Your task to perform on an android device: turn pop-ups off in chrome Image 0: 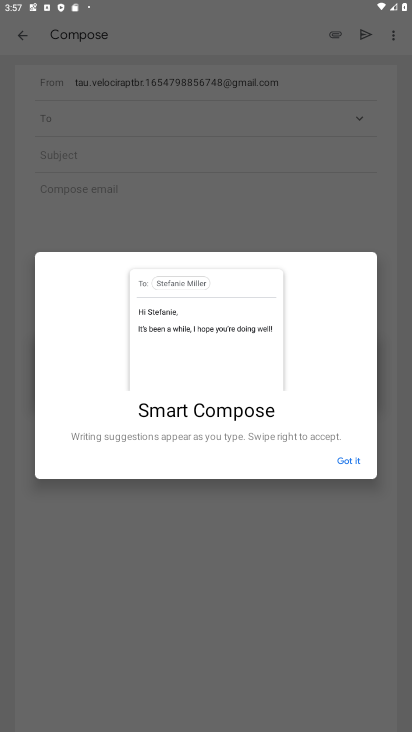
Step 0: press home button
Your task to perform on an android device: turn pop-ups off in chrome Image 1: 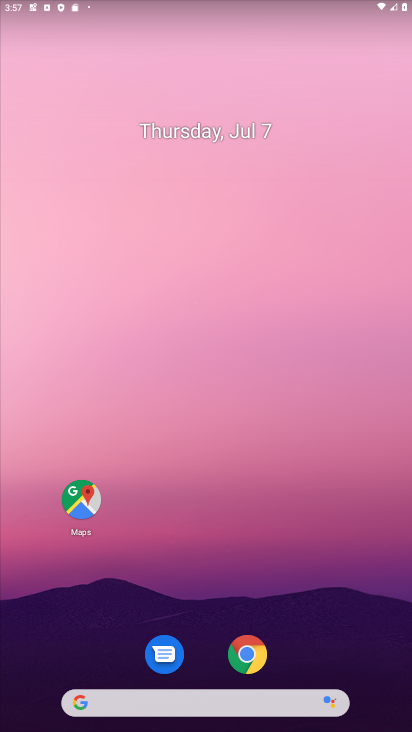
Step 1: click (250, 654)
Your task to perform on an android device: turn pop-ups off in chrome Image 2: 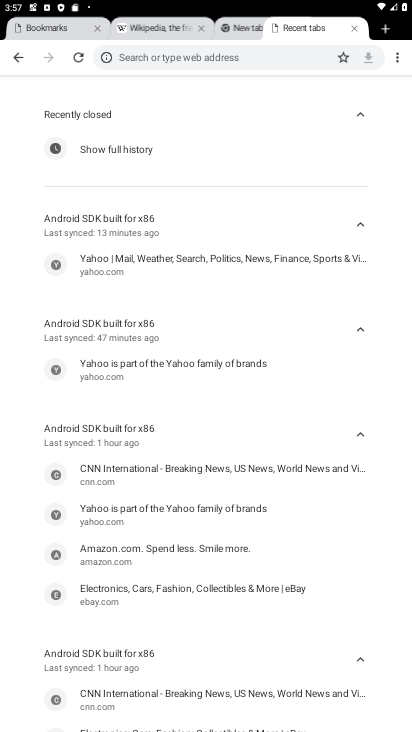
Step 2: click (398, 60)
Your task to perform on an android device: turn pop-ups off in chrome Image 3: 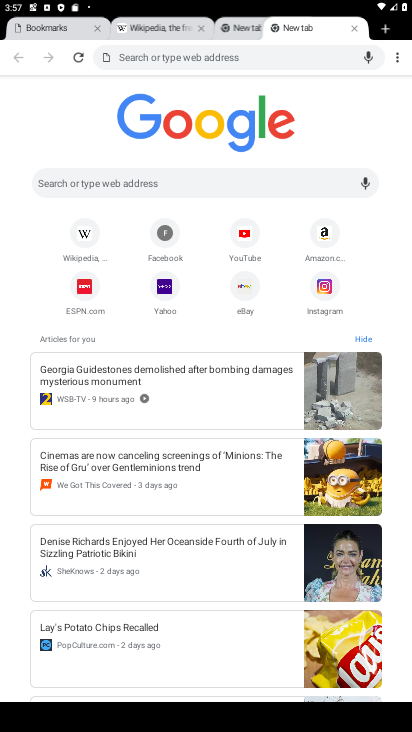
Step 3: click (399, 51)
Your task to perform on an android device: turn pop-ups off in chrome Image 4: 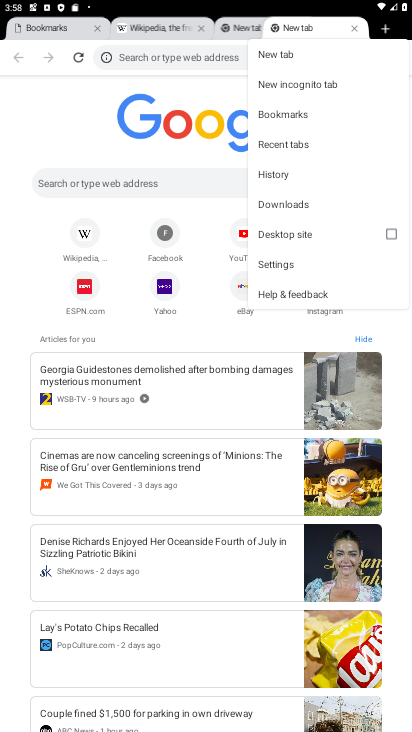
Step 4: click (281, 258)
Your task to perform on an android device: turn pop-ups off in chrome Image 5: 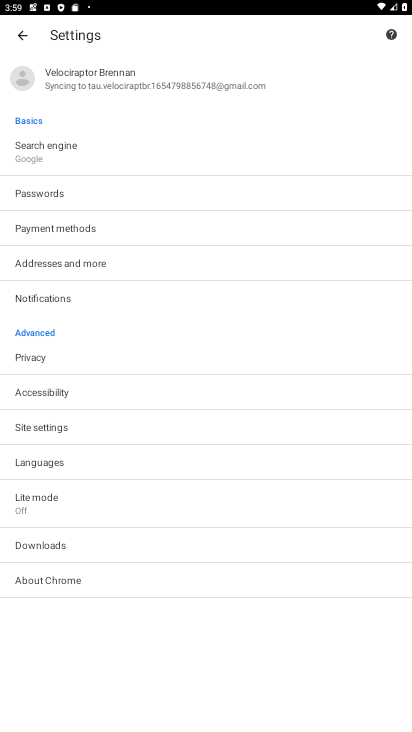
Step 5: click (129, 432)
Your task to perform on an android device: turn pop-ups off in chrome Image 6: 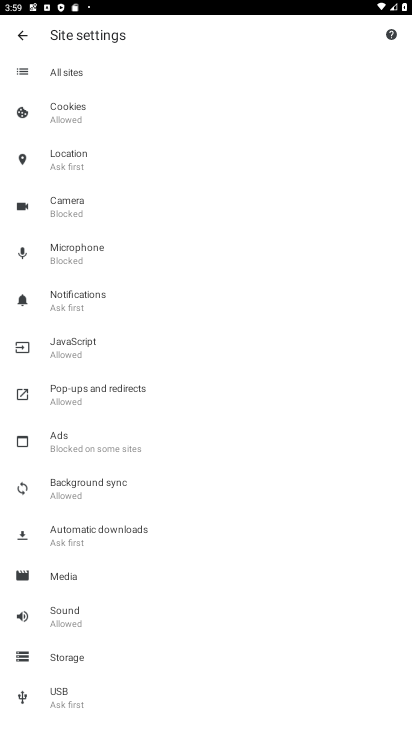
Step 6: click (131, 417)
Your task to perform on an android device: turn pop-ups off in chrome Image 7: 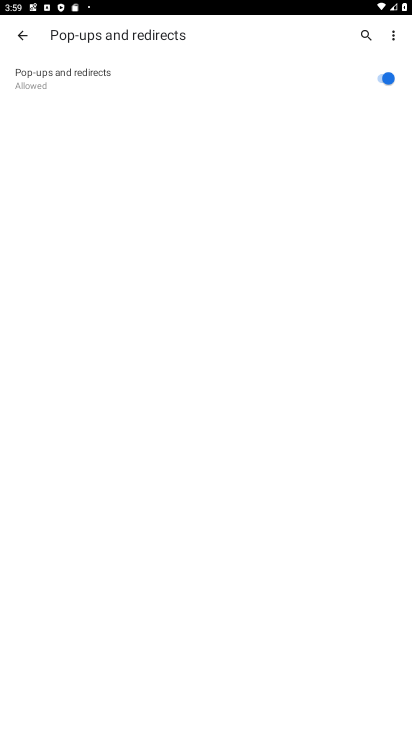
Step 7: click (380, 80)
Your task to perform on an android device: turn pop-ups off in chrome Image 8: 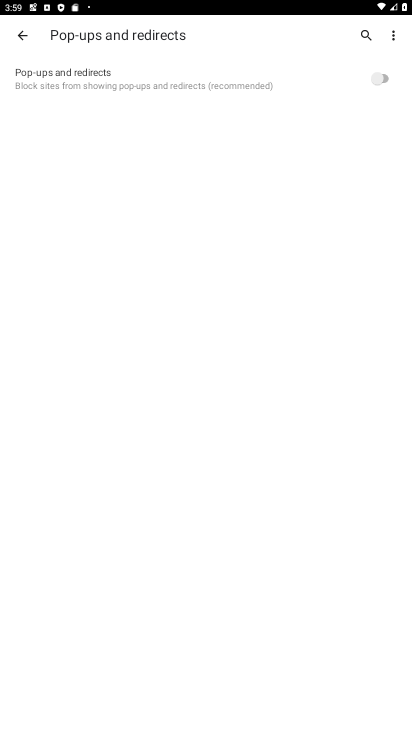
Step 8: task complete